Your task to perform on an android device: turn on the 24-hour format for clock Image 0: 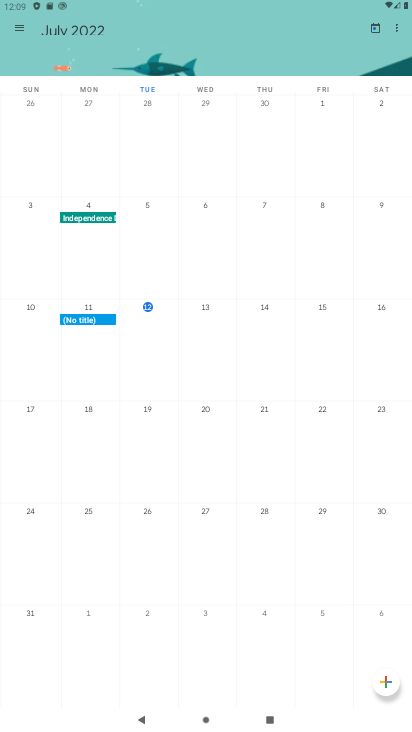
Step 0: press home button
Your task to perform on an android device: turn on the 24-hour format for clock Image 1: 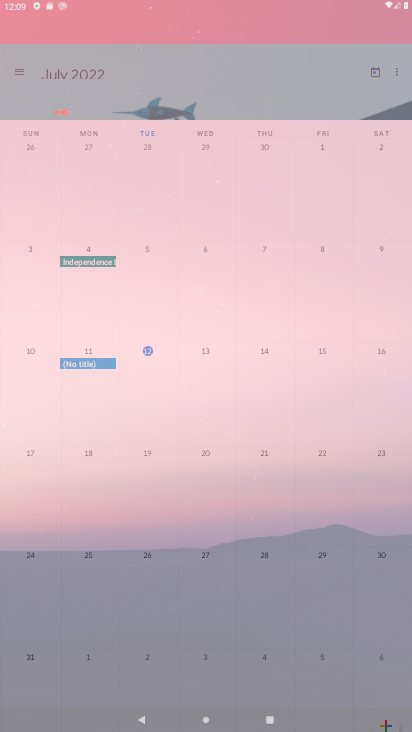
Step 1: drag from (354, 642) to (170, 0)
Your task to perform on an android device: turn on the 24-hour format for clock Image 2: 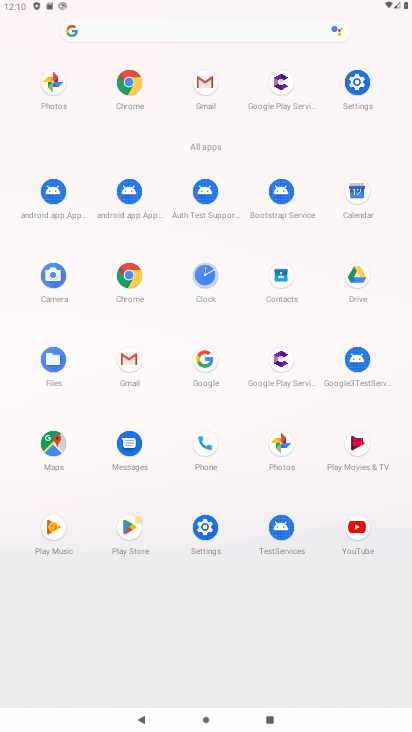
Step 2: click (207, 289)
Your task to perform on an android device: turn on the 24-hour format for clock Image 3: 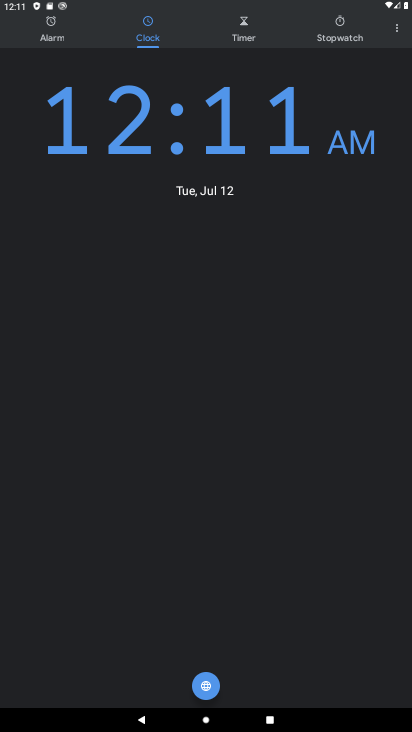
Step 3: click (396, 30)
Your task to perform on an android device: turn on the 24-hour format for clock Image 4: 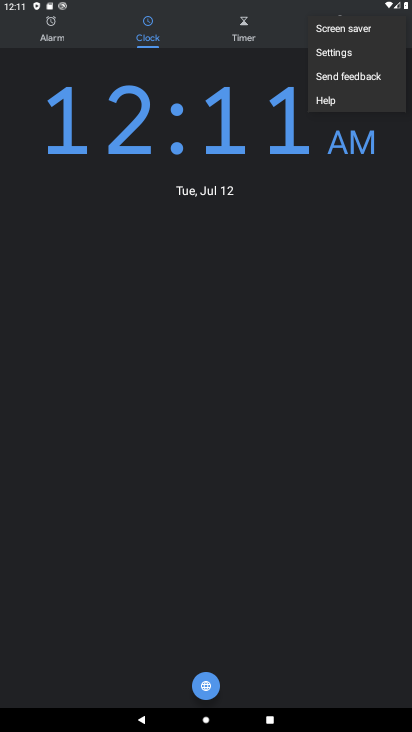
Step 4: click (346, 55)
Your task to perform on an android device: turn on the 24-hour format for clock Image 5: 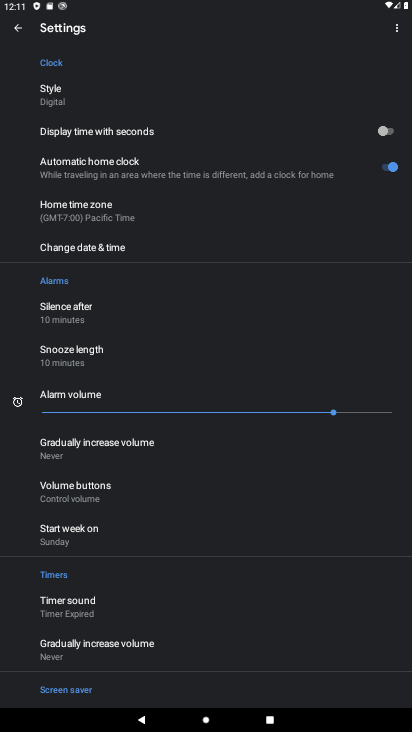
Step 5: click (117, 247)
Your task to perform on an android device: turn on the 24-hour format for clock Image 6: 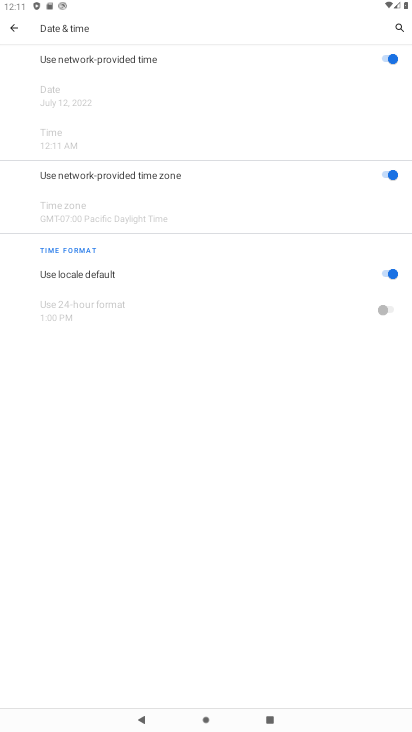
Step 6: task complete